Your task to perform on an android device: check android version Image 0: 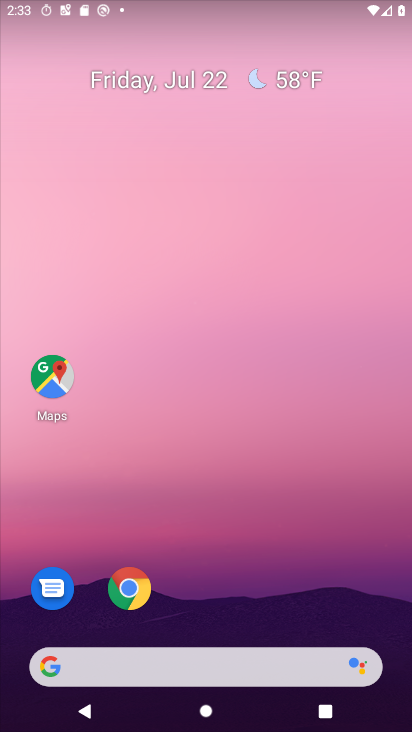
Step 0: drag from (181, 592) to (248, 68)
Your task to perform on an android device: check android version Image 1: 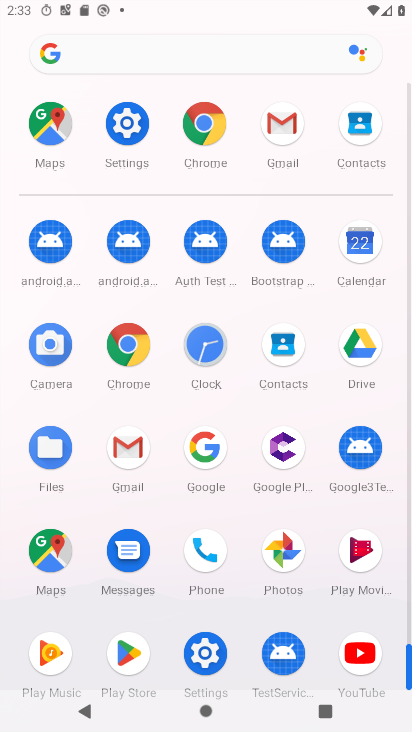
Step 1: click (208, 656)
Your task to perform on an android device: check android version Image 2: 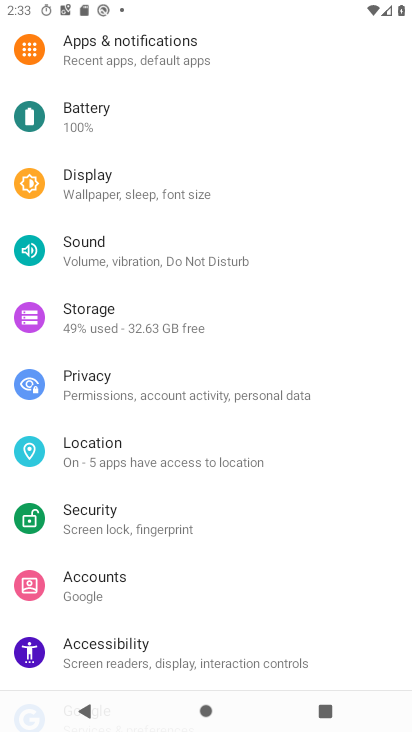
Step 2: drag from (258, 615) to (337, 69)
Your task to perform on an android device: check android version Image 3: 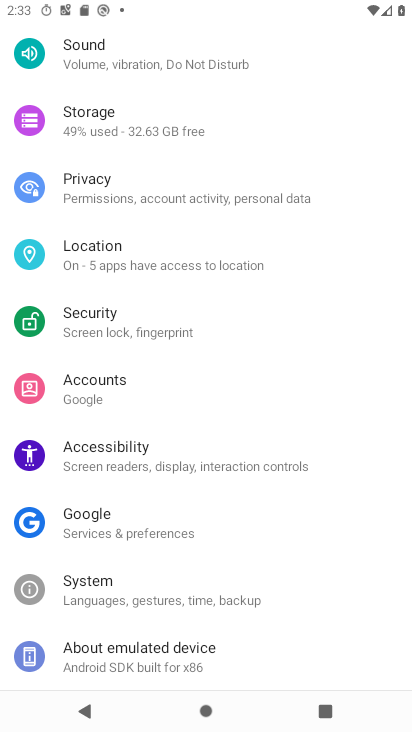
Step 3: click (92, 645)
Your task to perform on an android device: check android version Image 4: 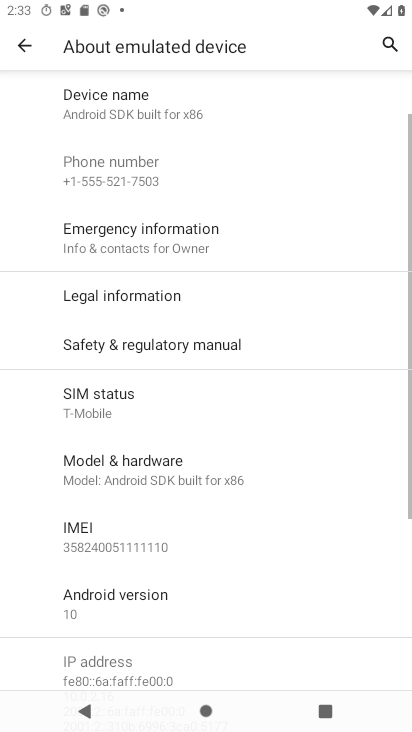
Step 4: click (90, 589)
Your task to perform on an android device: check android version Image 5: 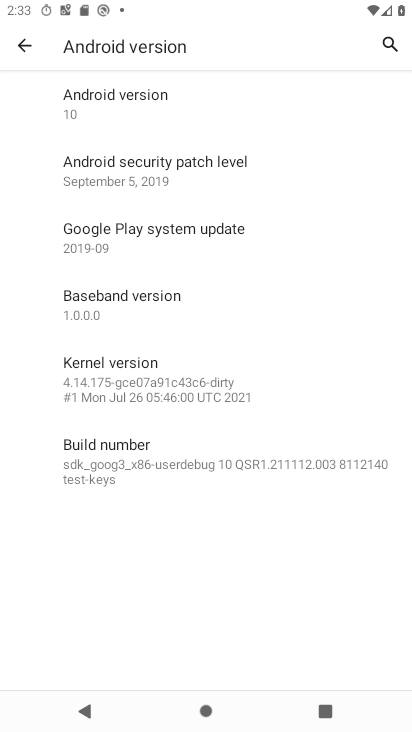
Step 5: task complete